Your task to perform on an android device: Open Google Chrome Image 0: 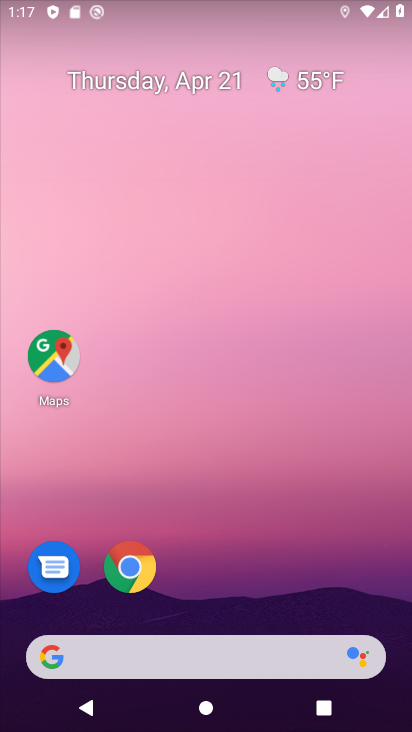
Step 0: drag from (229, 512) to (246, 10)
Your task to perform on an android device: Open Google Chrome Image 1: 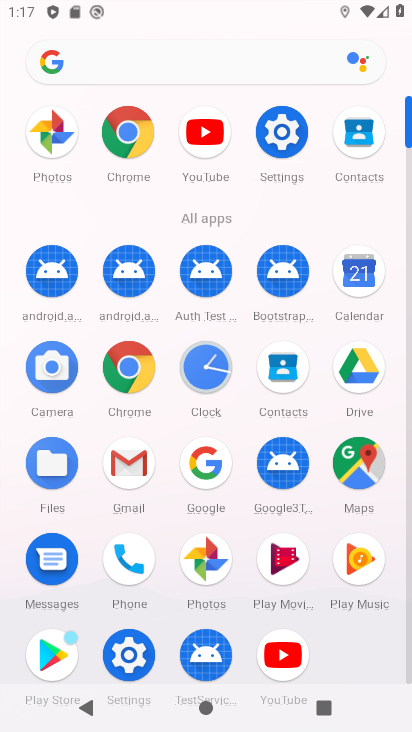
Step 1: click (126, 124)
Your task to perform on an android device: Open Google Chrome Image 2: 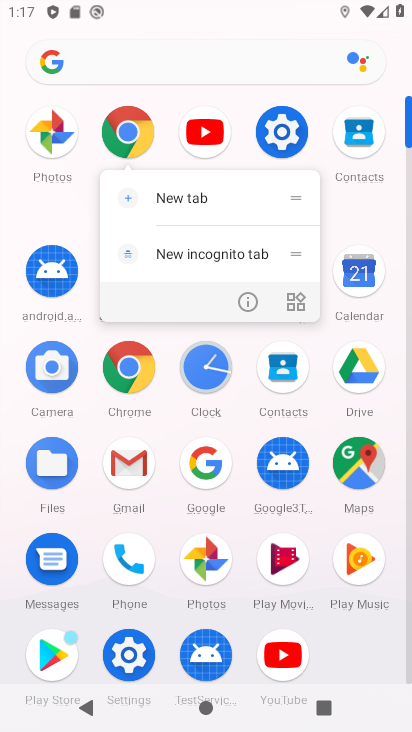
Step 2: click (126, 122)
Your task to perform on an android device: Open Google Chrome Image 3: 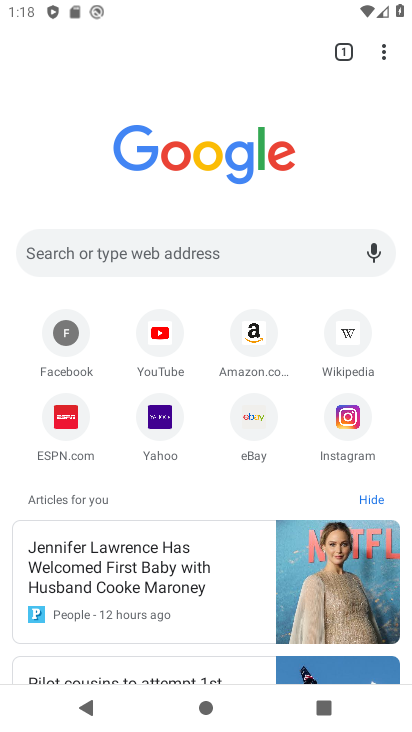
Step 3: task complete